Your task to perform on an android device: Search for sushi restaurants on Maps Image 0: 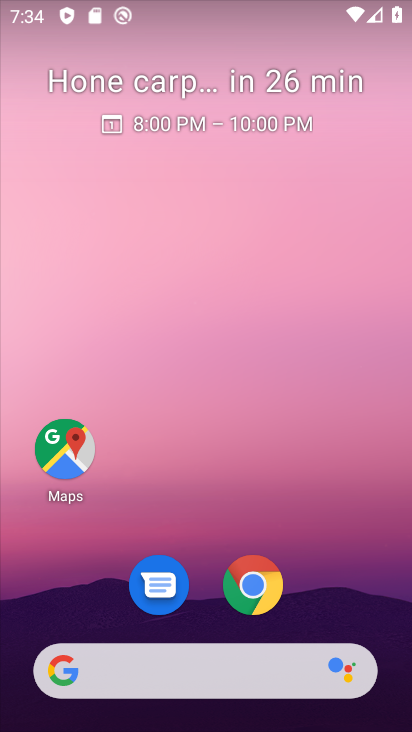
Step 0: click (72, 450)
Your task to perform on an android device: Search for sushi restaurants on Maps Image 1: 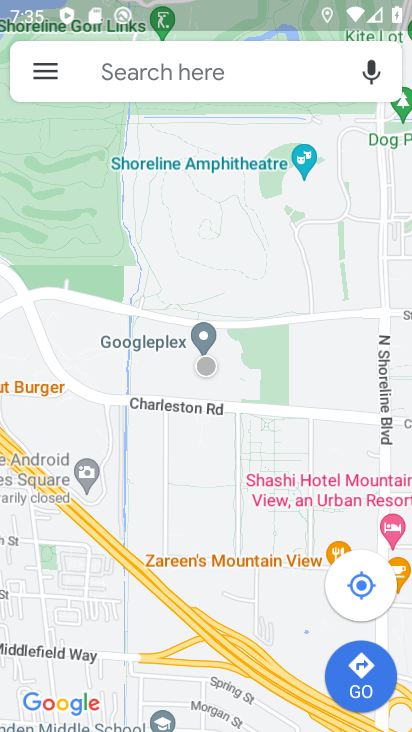
Step 1: click (208, 71)
Your task to perform on an android device: Search for sushi restaurants on Maps Image 2: 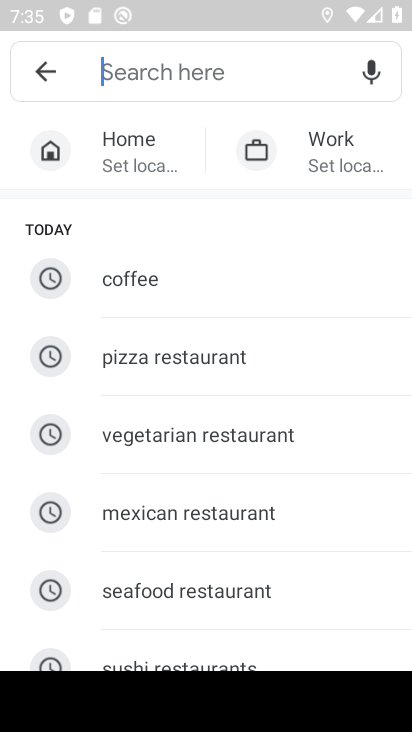
Step 2: drag from (215, 492) to (216, 302)
Your task to perform on an android device: Search for sushi restaurants on Maps Image 3: 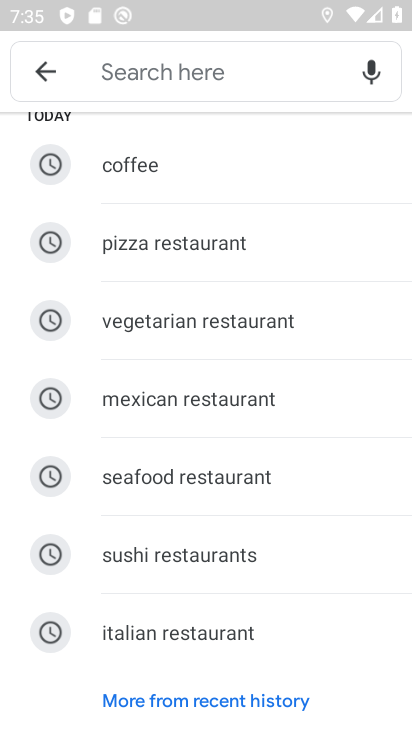
Step 3: click (207, 553)
Your task to perform on an android device: Search for sushi restaurants on Maps Image 4: 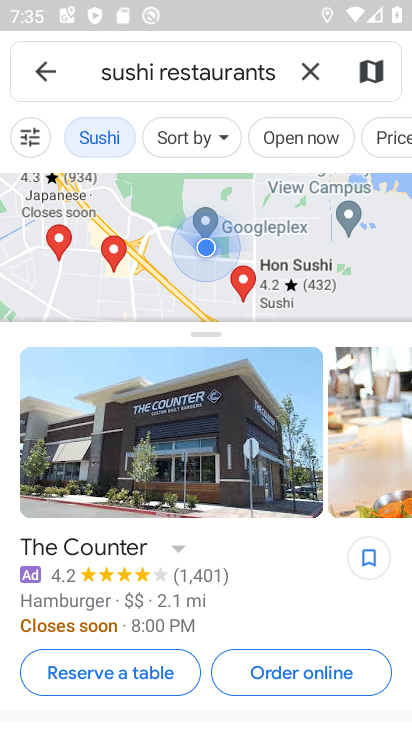
Step 4: task complete